Your task to perform on an android device: Do I have any events today? Image 0: 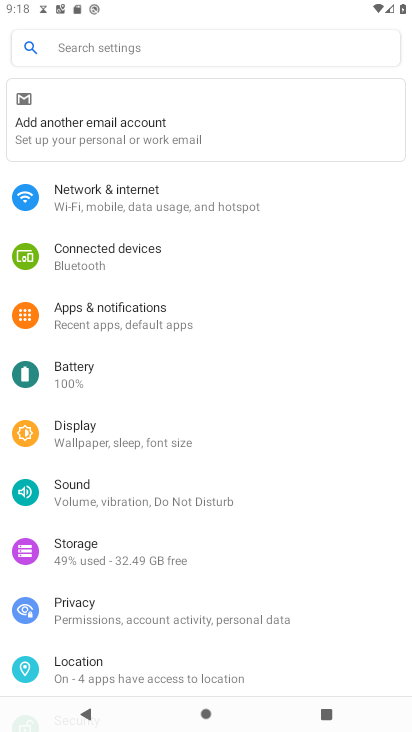
Step 0: press back button
Your task to perform on an android device: Do I have any events today? Image 1: 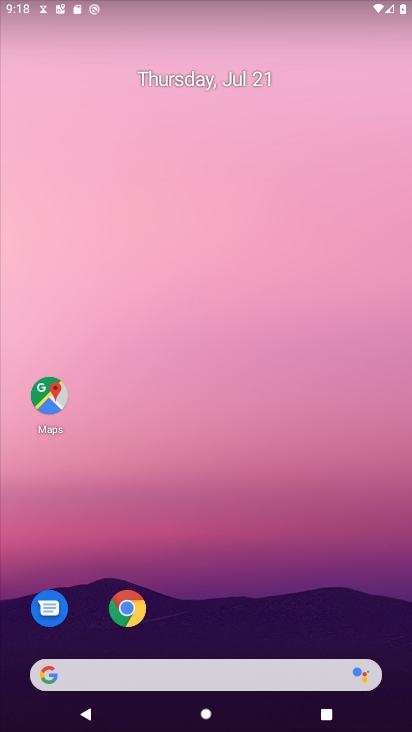
Step 1: drag from (191, 604) to (117, 304)
Your task to perform on an android device: Do I have any events today? Image 2: 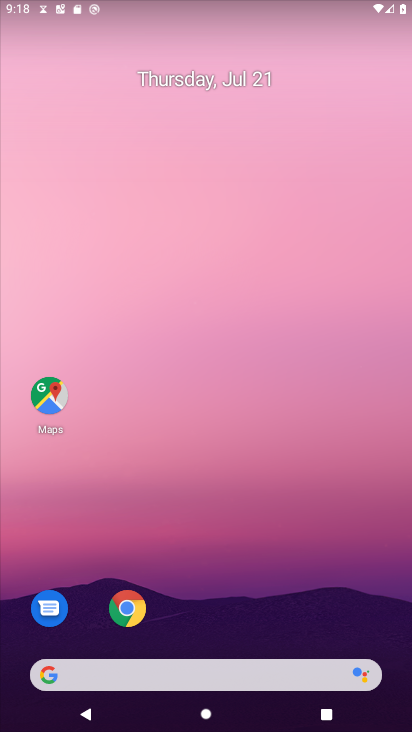
Step 2: drag from (187, 608) to (188, 218)
Your task to perform on an android device: Do I have any events today? Image 3: 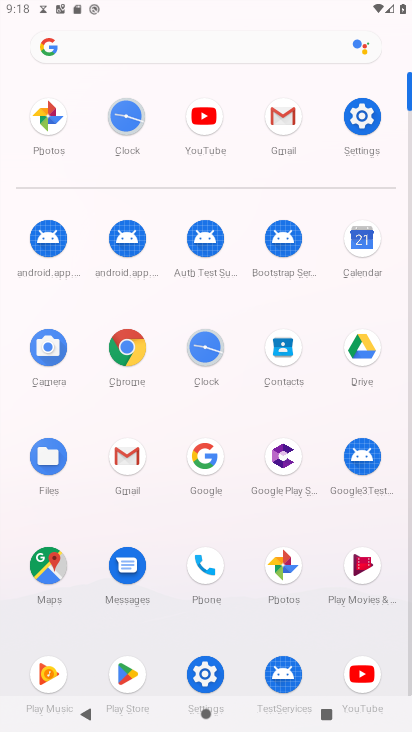
Step 3: click (369, 266)
Your task to perform on an android device: Do I have any events today? Image 4: 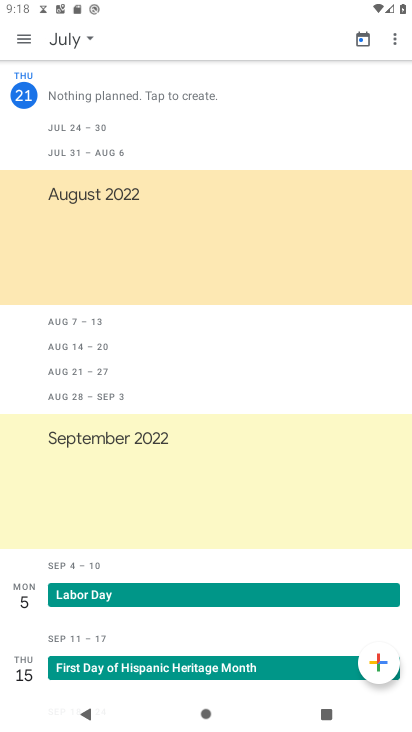
Step 4: task complete